Your task to perform on an android device: Search for pizza restaurants on Maps Image 0: 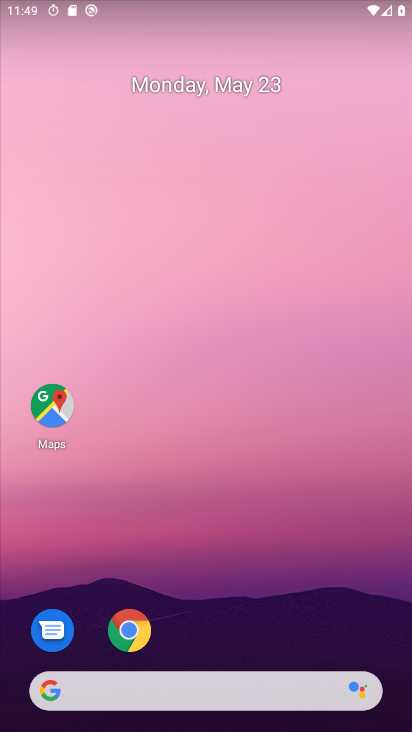
Step 0: click (52, 387)
Your task to perform on an android device: Search for pizza restaurants on Maps Image 1: 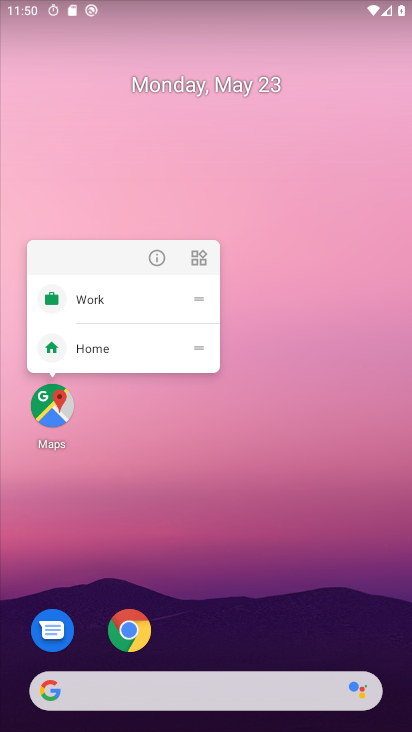
Step 1: click (58, 412)
Your task to perform on an android device: Search for pizza restaurants on Maps Image 2: 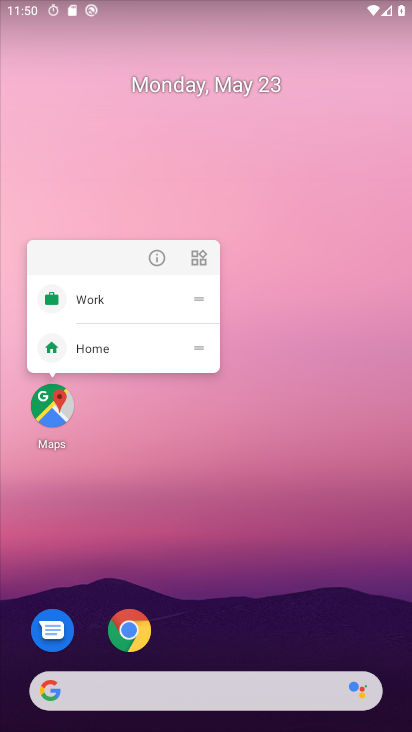
Step 2: click (58, 412)
Your task to perform on an android device: Search for pizza restaurants on Maps Image 3: 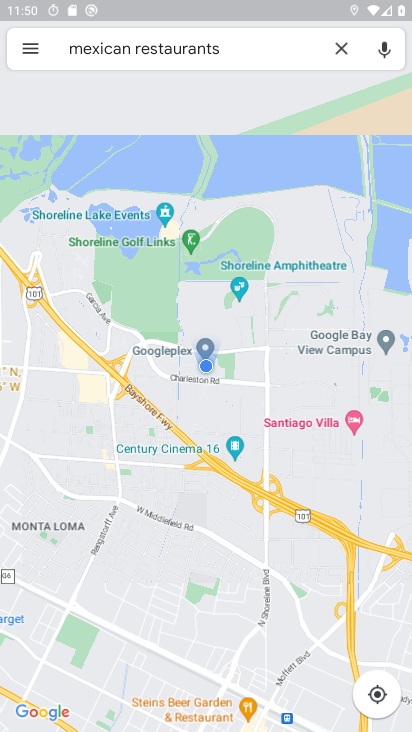
Step 3: click (343, 45)
Your task to perform on an android device: Search for pizza restaurants on Maps Image 4: 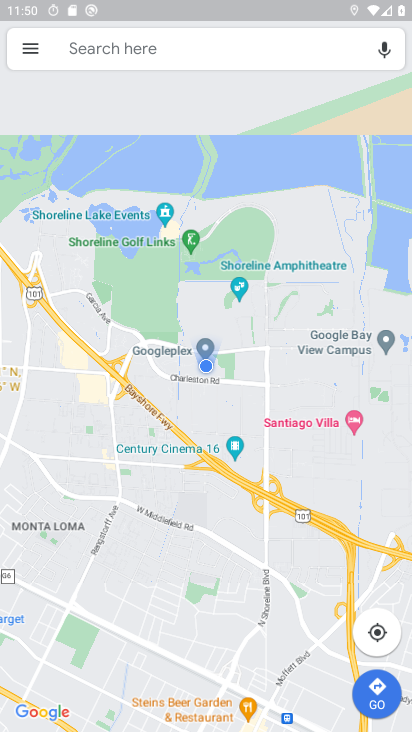
Step 4: click (258, 39)
Your task to perform on an android device: Search for pizza restaurants on Maps Image 5: 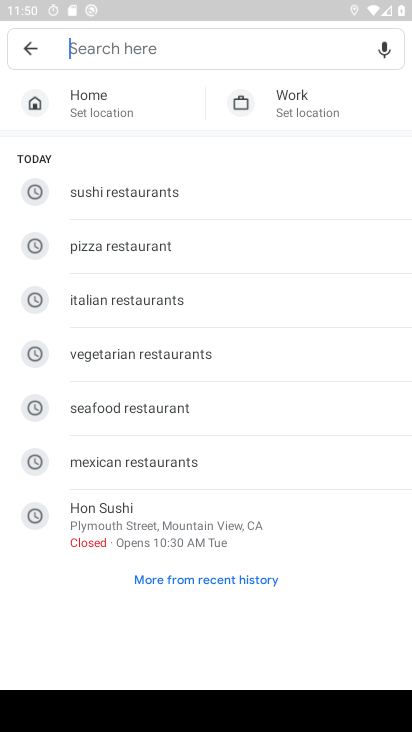
Step 5: type "Pizza restaurant"
Your task to perform on an android device: Search for pizza restaurants on Maps Image 6: 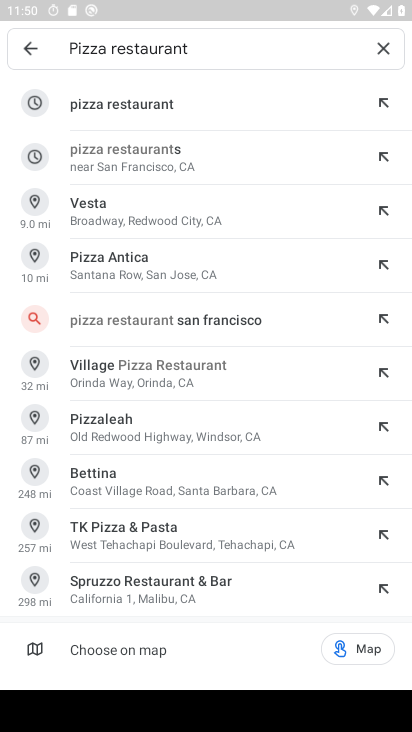
Step 6: click (184, 100)
Your task to perform on an android device: Search for pizza restaurants on Maps Image 7: 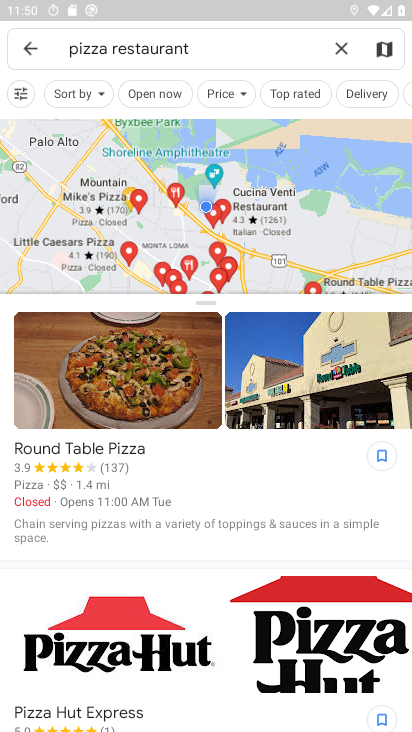
Step 7: task complete